Your task to perform on an android device: find photos in the google photos app Image 0: 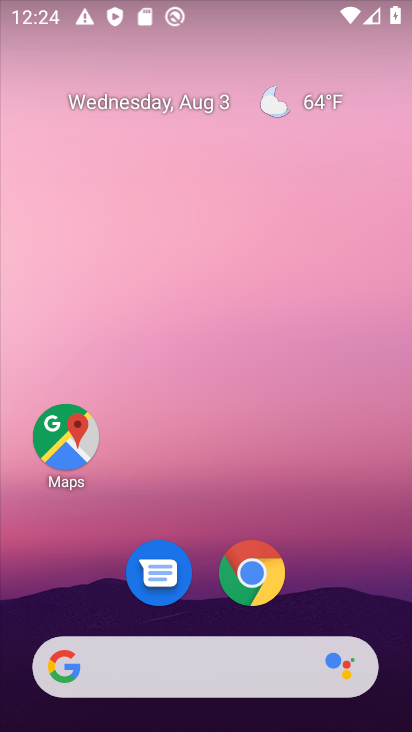
Step 0: drag from (201, 662) to (224, 234)
Your task to perform on an android device: find photos in the google photos app Image 1: 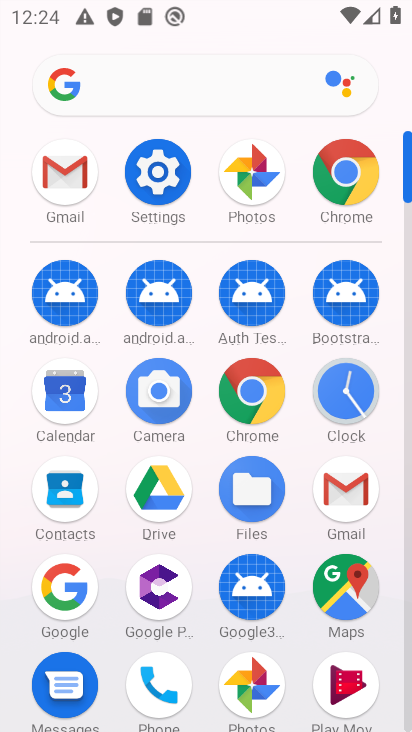
Step 1: drag from (244, 433) to (253, 326)
Your task to perform on an android device: find photos in the google photos app Image 2: 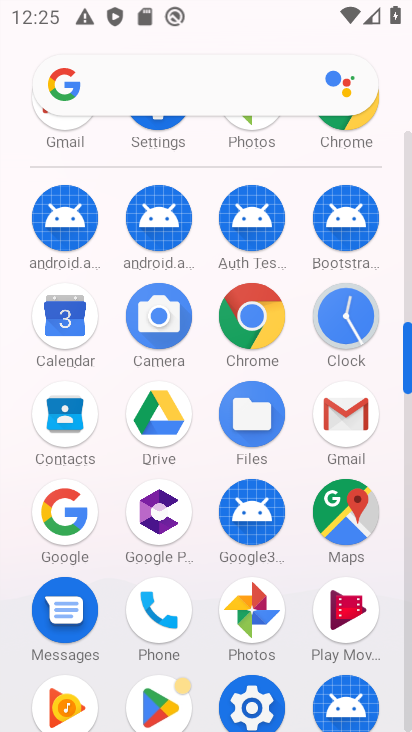
Step 2: drag from (210, 584) to (220, 457)
Your task to perform on an android device: find photos in the google photos app Image 3: 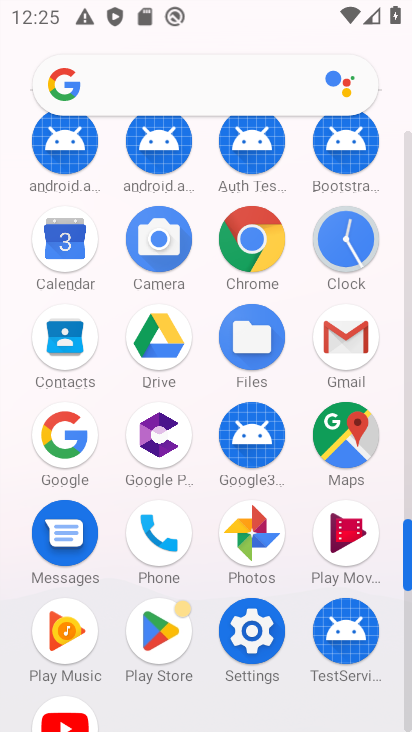
Step 3: click (239, 565)
Your task to perform on an android device: find photos in the google photos app Image 4: 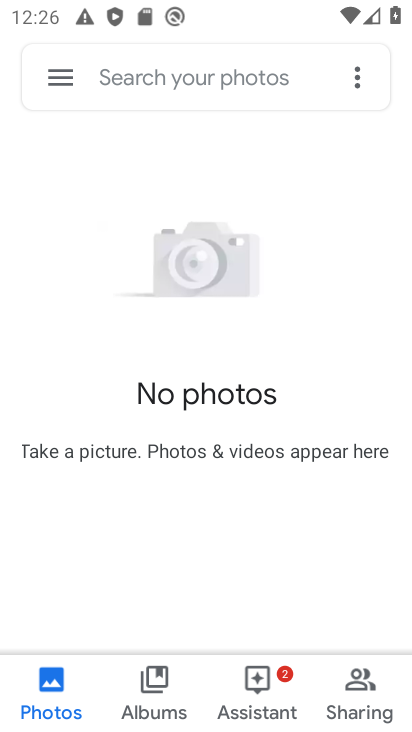
Step 4: task complete